Your task to perform on an android device: What is the news today? Image 0: 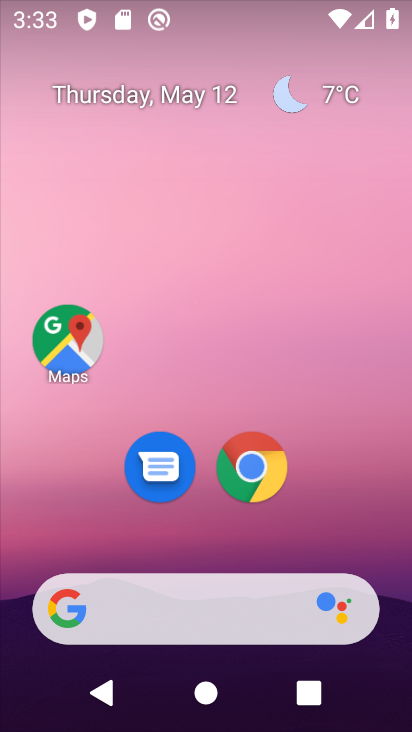
Step 0: drag from (3, 275) to (295, 229)
Your task to perform on an android device: What is the news today? Image 1: 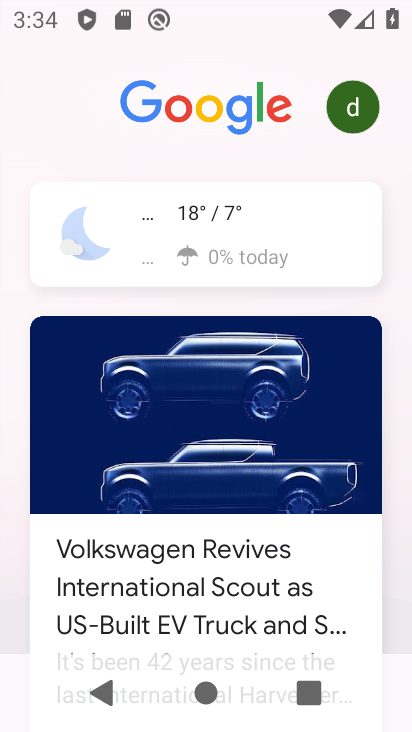
Step 1: task complete